Your task to perform on an android device: Open the calendar app, open the side menu, and click the "Day" option Image 0: 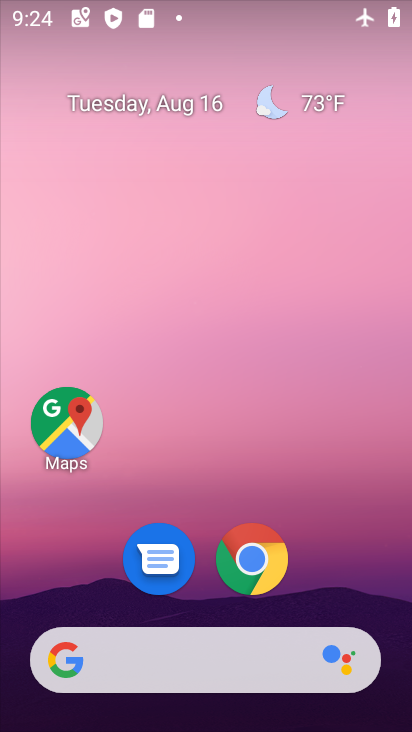
Step 0: drag from (310, 536) to (276, 25)
Your task to perform on an android device: Open the calendar app, open the side menu, and click the "Day" option Image 1: 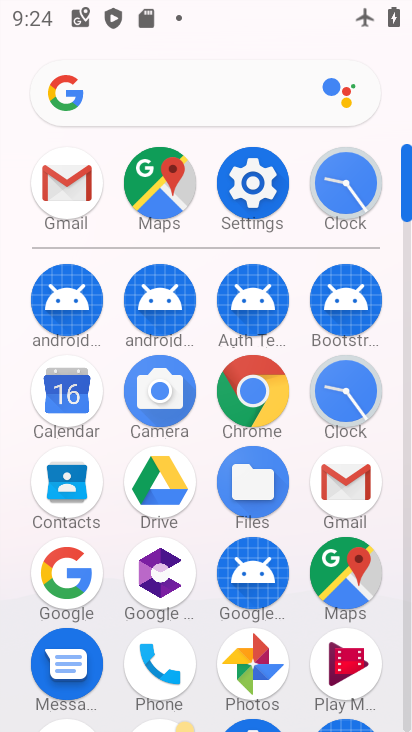
Step 1: click (48, 390)
Your task to perform on an android device: Open the calendar app, open the side menu, and click the "Day" option Image 2: 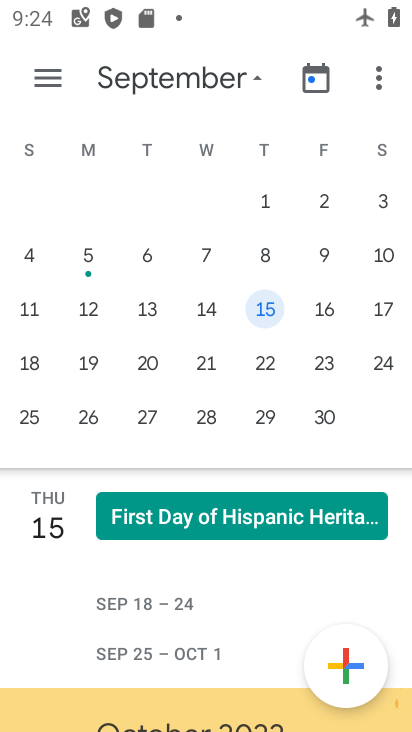
Step 2: click (50, 70)
Your task to perform on an android device: Open the calendar app, open the side menu, and click the "Day" option Image 3: 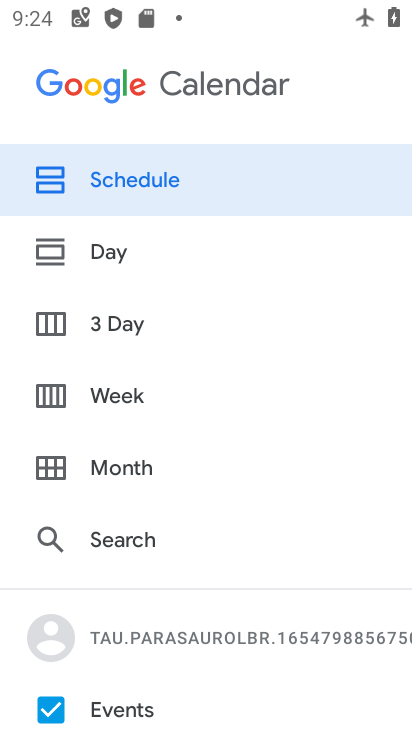
Step 3: click (99, 238)
Your task to perform on an android device: Open the calendar app, open the side menu, and click the "Day" option Image 4: 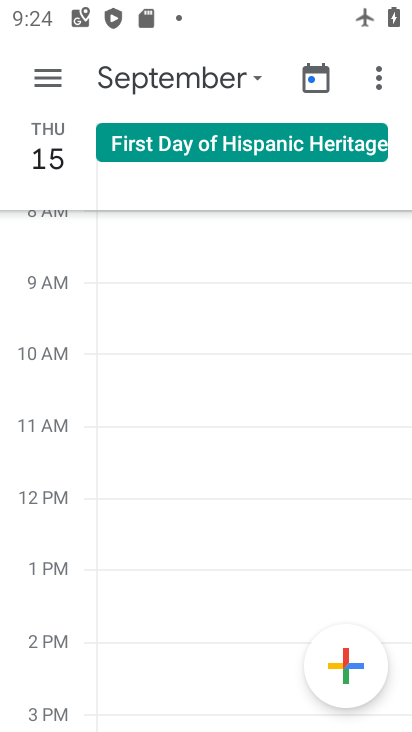
Step 4: task complete